Your task to perform on an android device: see creations saved in the google photos Image 0: 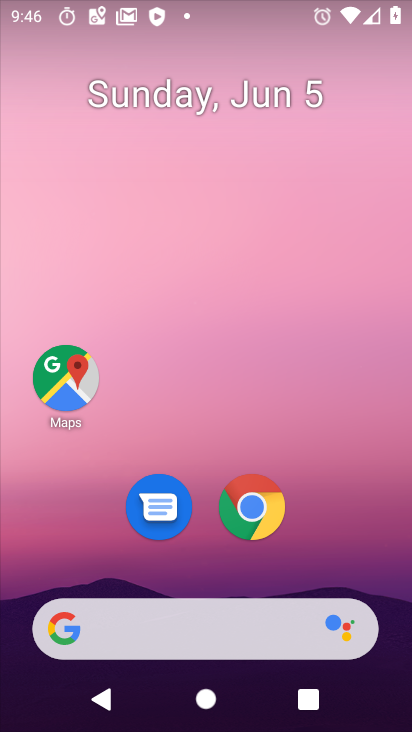
Step 0: drag from (262, 656) to (265, 202)
Your task to perform on an android device: see creations saved in the google photos Image 1: 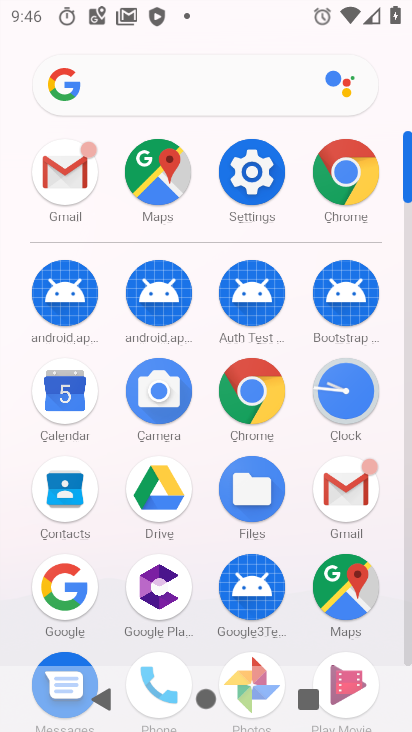
Step 1: click (232, 651)
Your task to perform on an android device: see creations saved in the google photos Image 2: 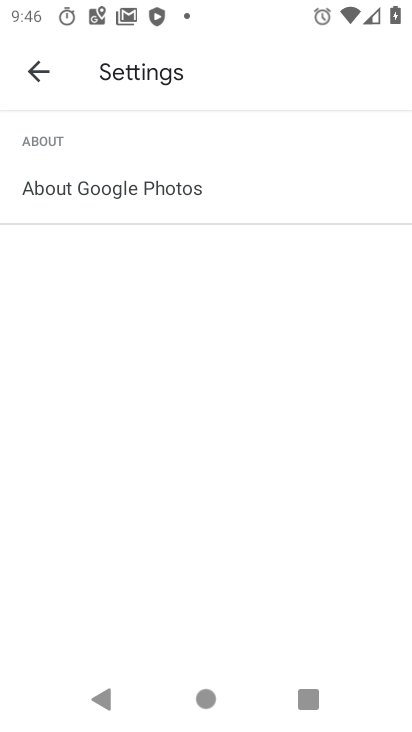
Step 2: click (39, 54)
Your task to perform on an android device: see creations saved in the google photos Image 3: 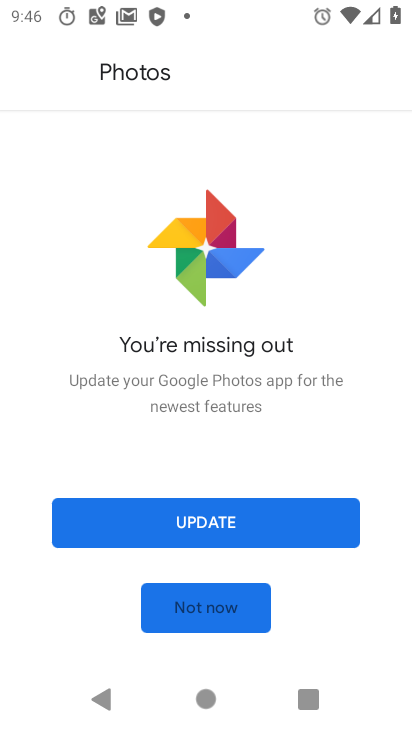
Step 3: click (221, 258)
Your task to perform on an android device: see creations saved in the google photos Image 4: 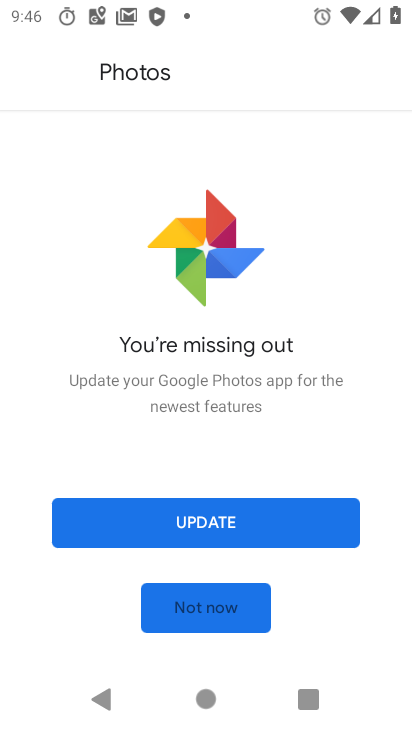
Step 4: click (218, 629)
Your task to perform on an android device: see creations saved in the google photos Image 5: 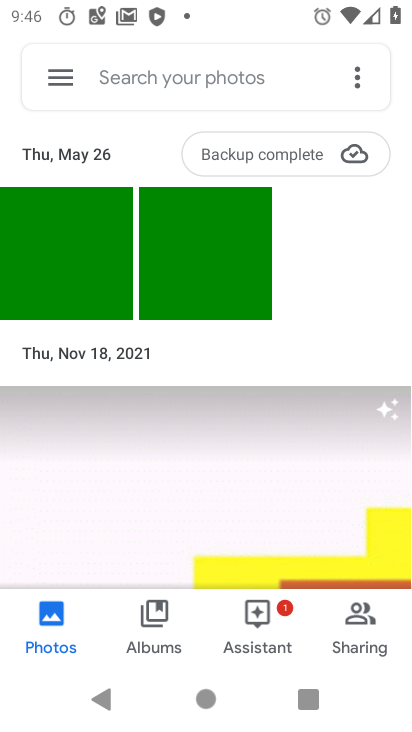
Step 5: click (194, 275)
Your task to perform on an android device: see creations saved in the google photos Image 6: 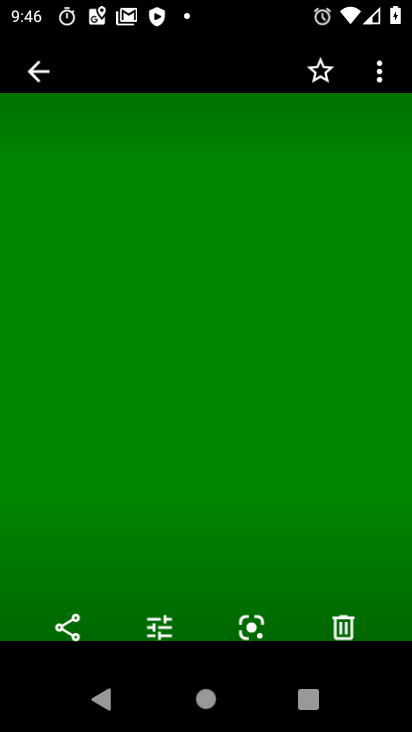
Step 6: click (372, 80)
Your task to perform on an android device: see creations saved in the google photos Image 7: 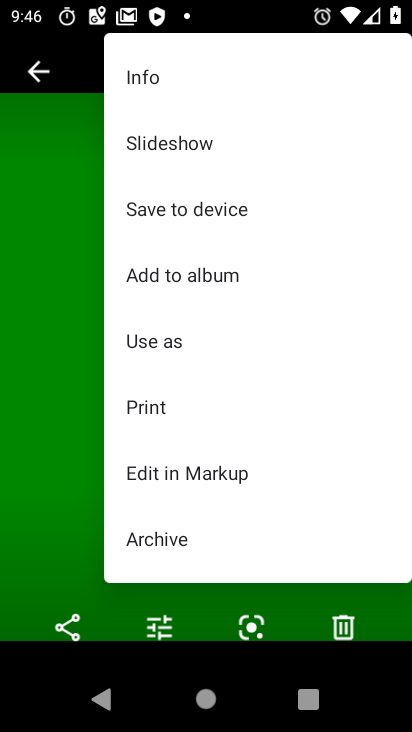
Step 7: click (154, 212)
Your task to perform on an android device: see creations saved in the google photos Image 8: 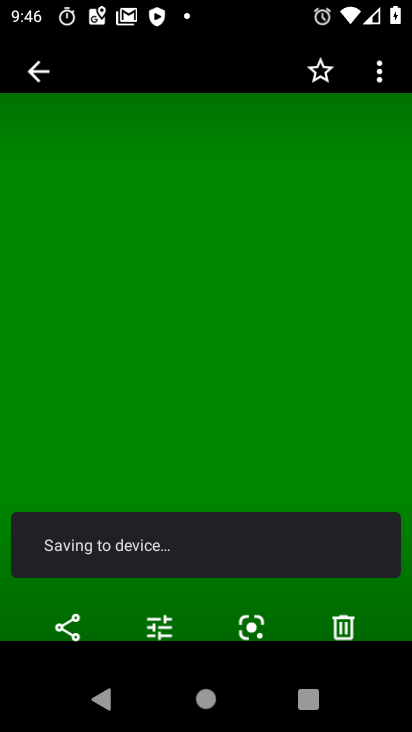
Step 8: task complete